Your task to perform on an android device: open app "File Manager" (install if not already installed) Image 0: 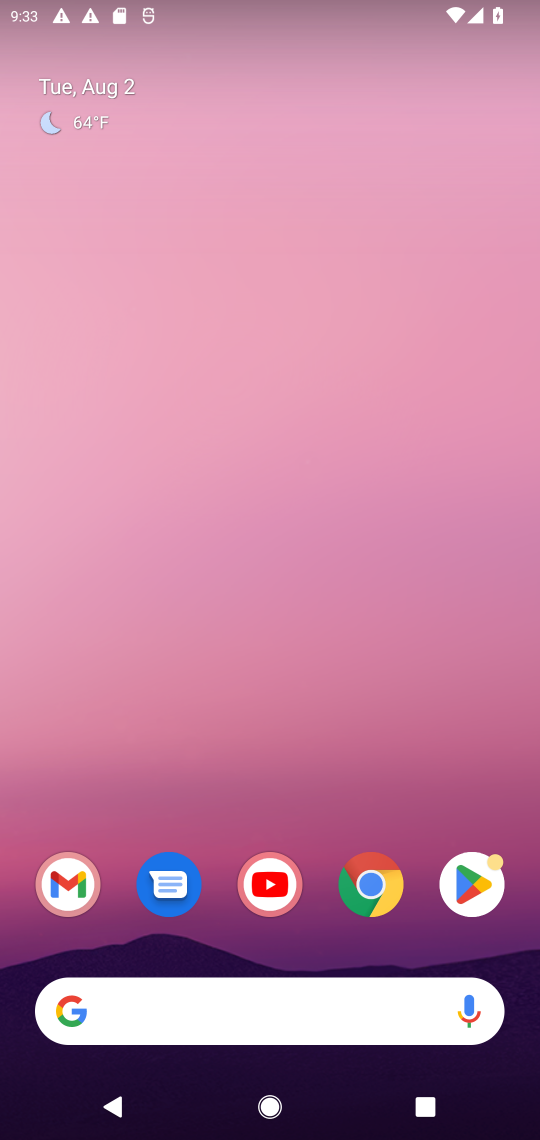
Step 0: press home button
Your task to perform on an android device: open app "File Manager" (install if not already installed) Image 1: 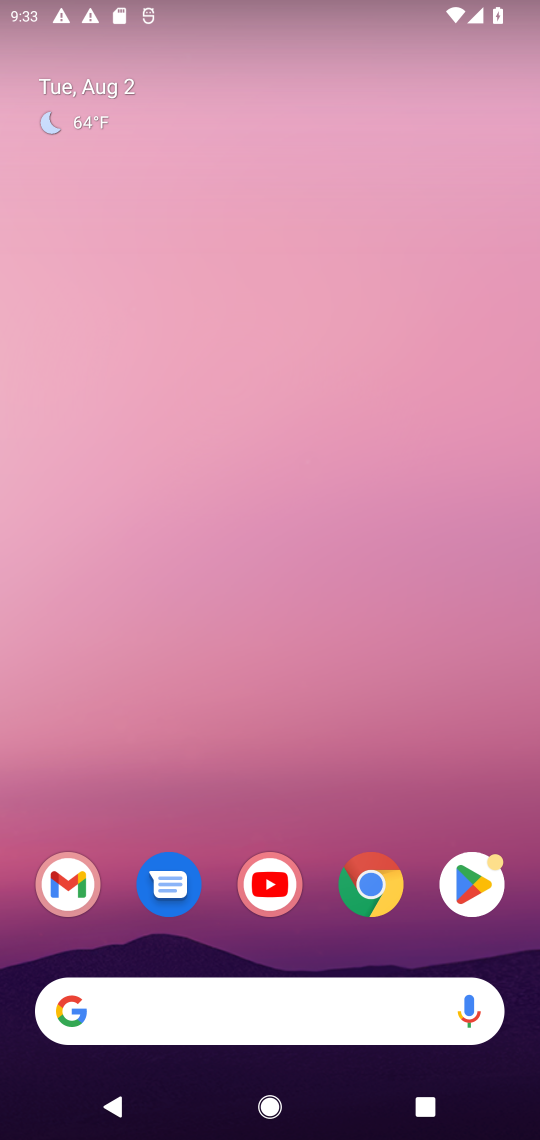
Step 1: click (474, 875)
Your task to perform on an android device: open app "File Manager" (install if not already installed) Image 2: 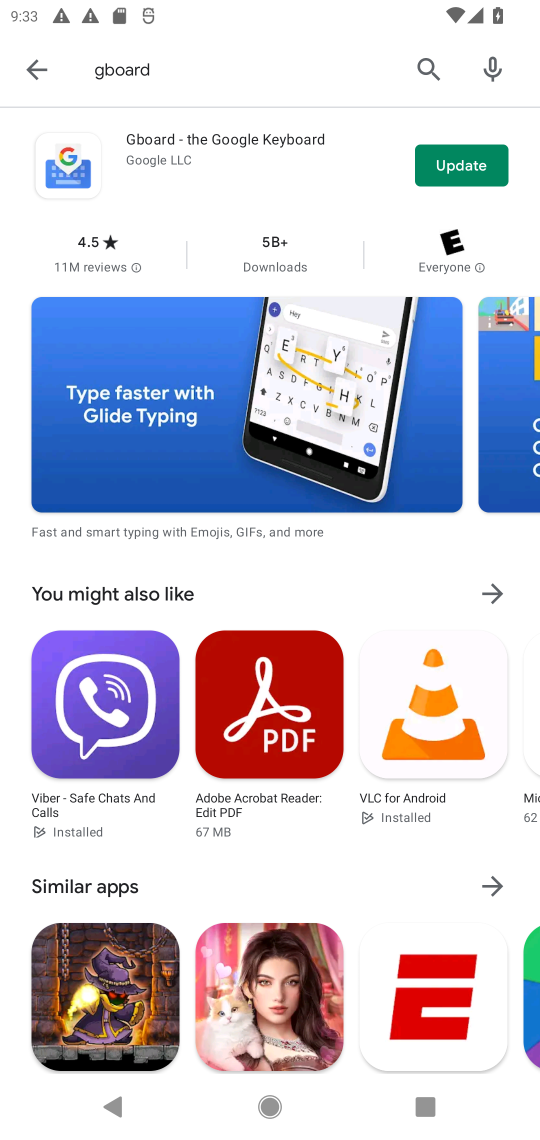
Step 2: click (424, 65)
Your task to perform on an android device: open app "File Manager" (install if not already installed) Image 3: 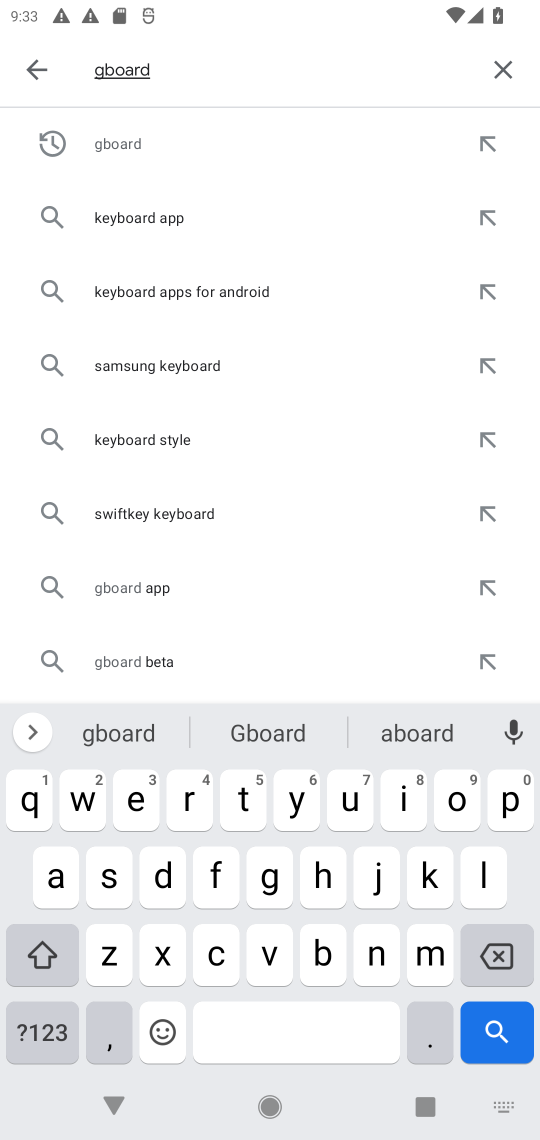
Step 3: click (500, 67)
Your task to perform on an android device: open app "File Manager" (install if not already installed) Image 4: 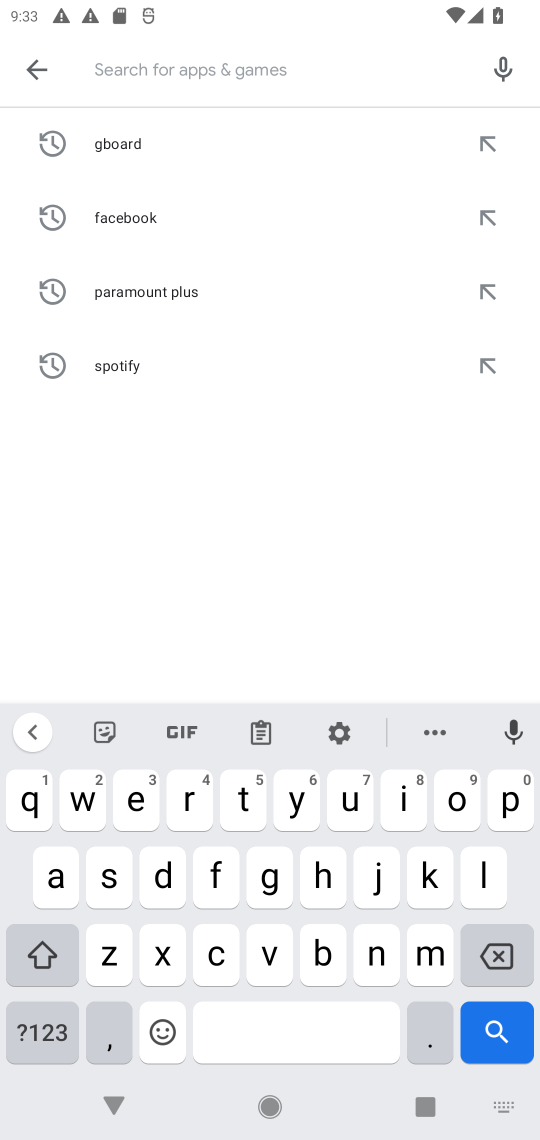
Step 4: click (218, 874)
Your task to perform on an android device: open app "File Manager" (install if not already installed) Image 5: 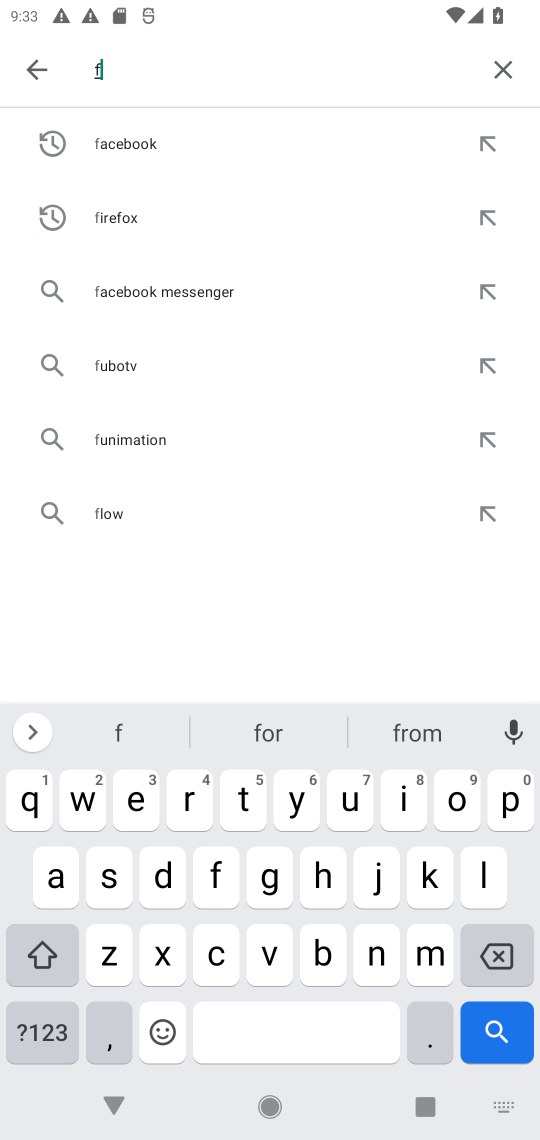
Step 5: click (411, 800)
Your task to perform on an android device: open app "File Manager" (install if not already installed) Image 6: 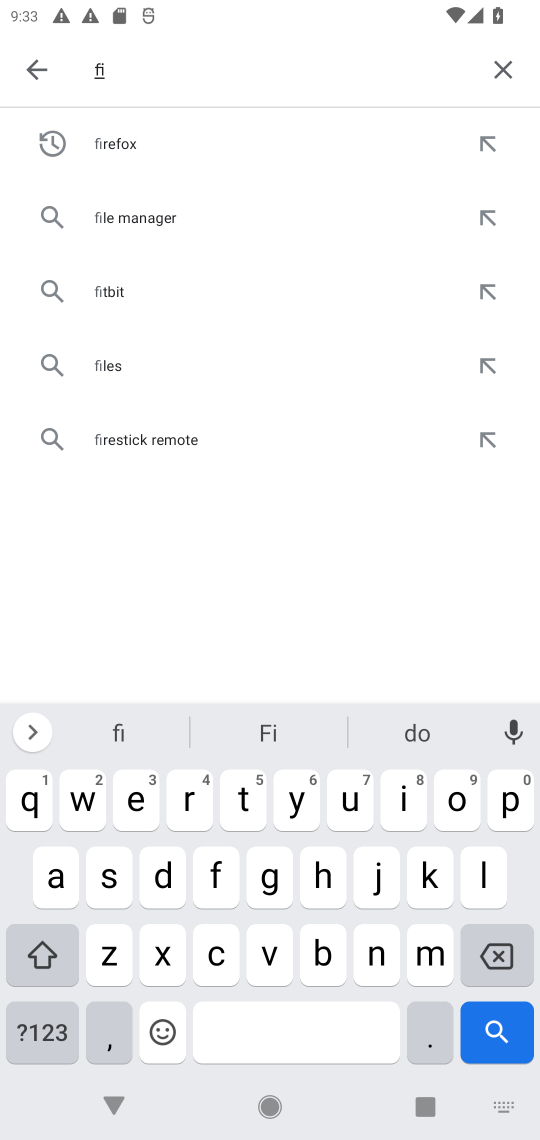
Step 6: click (483, 880)
Your task to perform on an android device: open app "File Manager" (install if not already installed) Image 7: 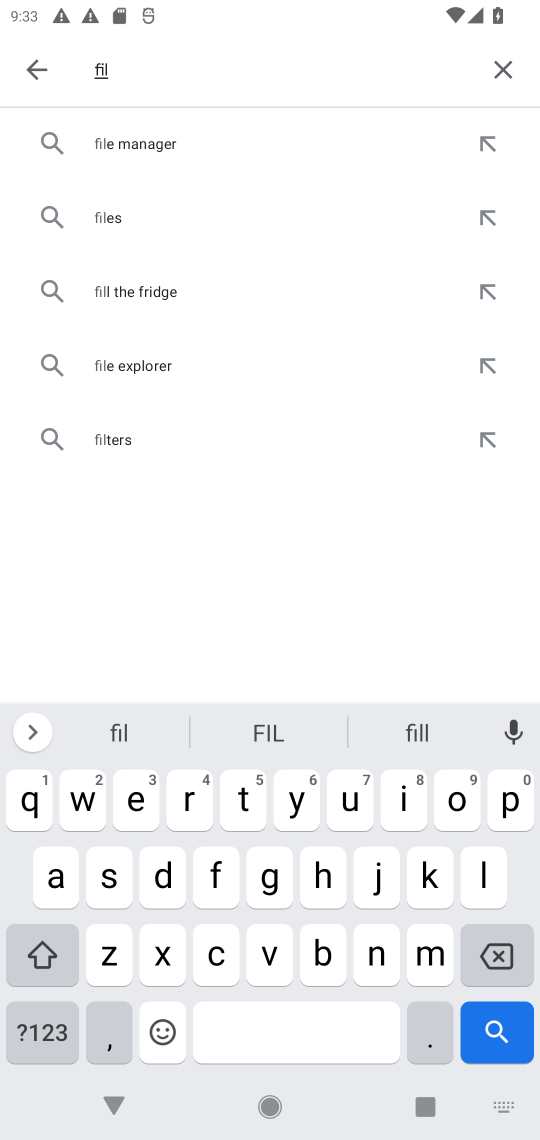
Step 7: click (132, 802)
Your task to perform on an android device: open app "File Manager" (install if not already installed) Image 8: 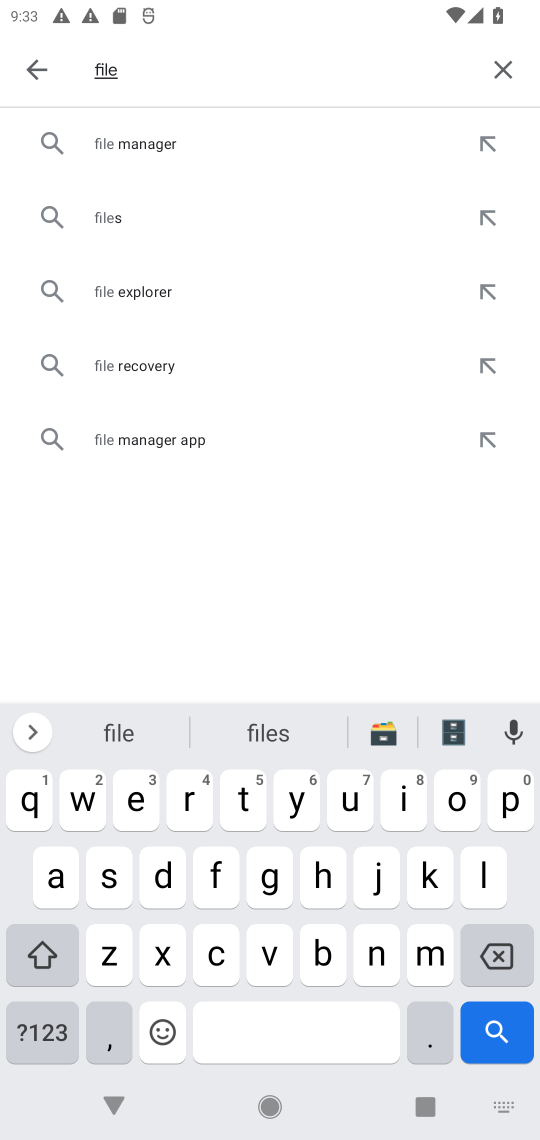
Step 8: click (250, 1022)
Your task to perform on an android device: open app "File Manager" (install if not already installed) Image 9: 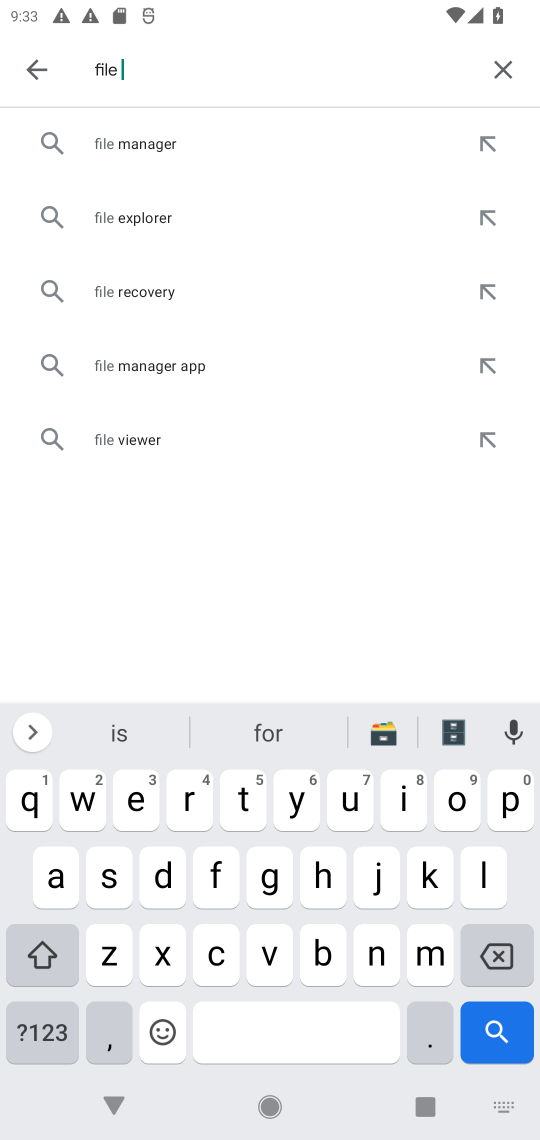
Step 9: click (201, 144)
Your task to perform on an android device: open app "File Manager" (install if not already installed) Image 10: 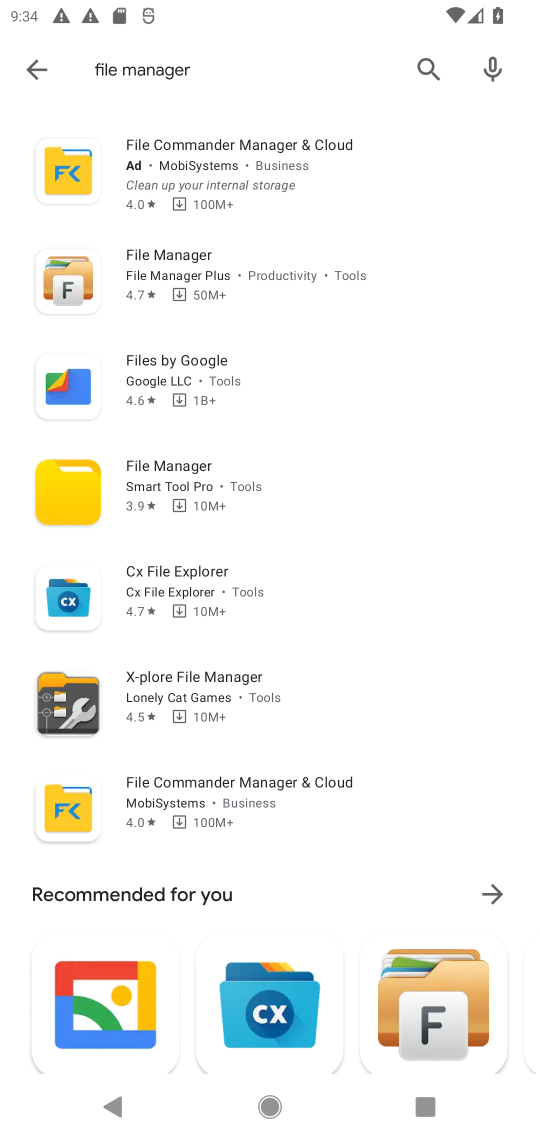
Step 10: click (226, 472)
Your task to perform on an android device: open app "File Manager" (install if not already installed) Image 11: 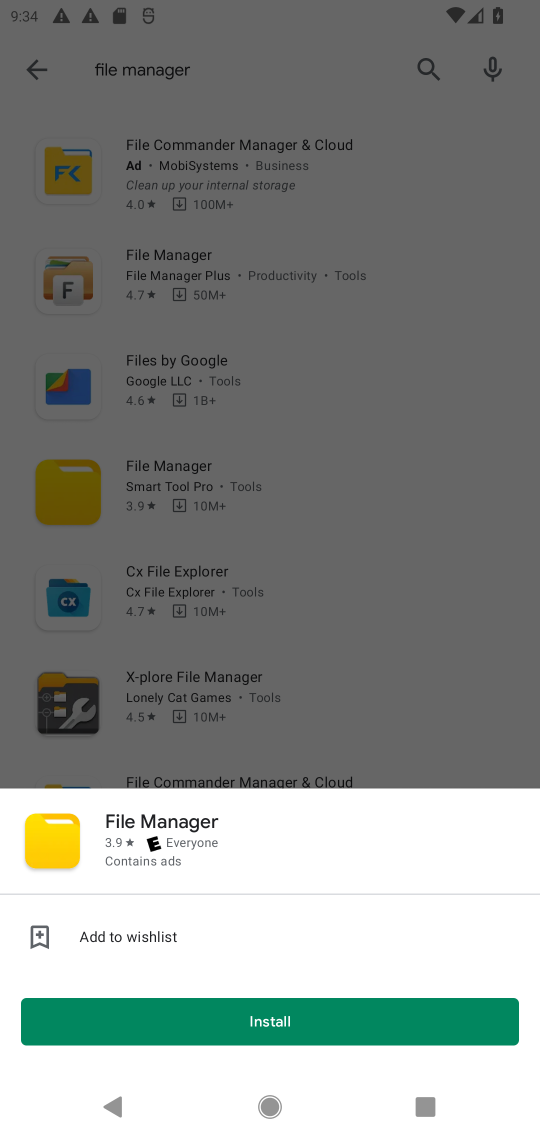
Step 11: click (249, 433)
Your task to perform on an android device: open app "File Manager" (install if not already installed) Image 12: 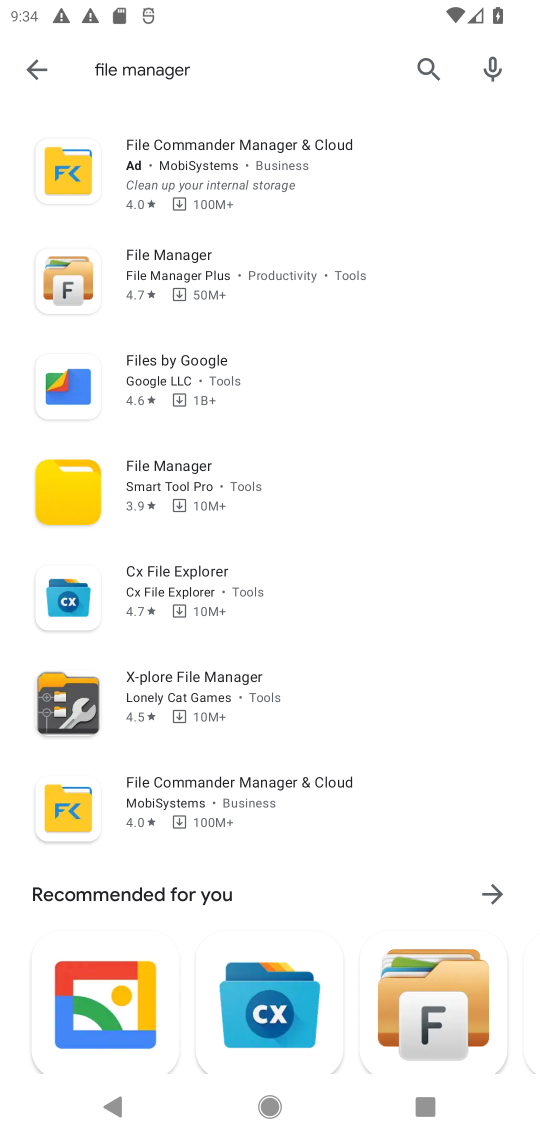
Step 12: click (210, 282)
Your task to perform on an android device: open app "File Manager" (install if not already installed) Image 13: 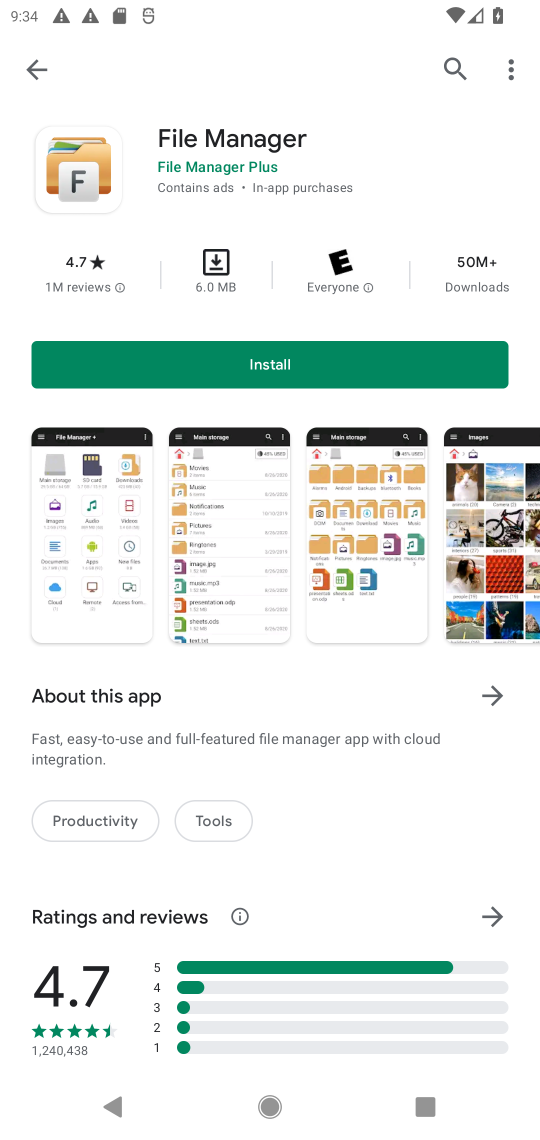
Step 13: click (325, 370)
Your task to perform on an android device: open app "File Manager" (install if not already installed) Image 14: 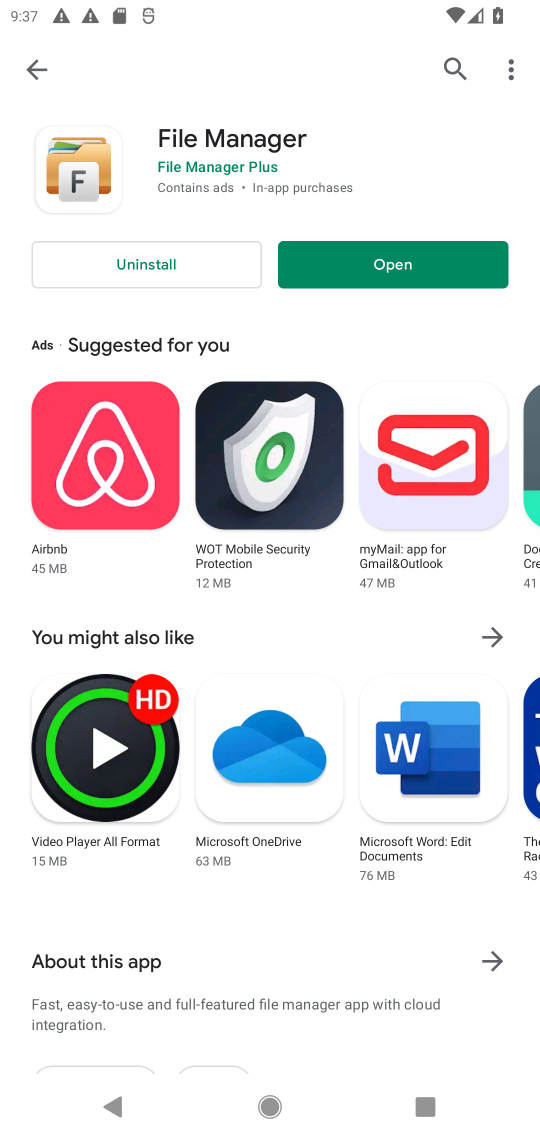
Step 14: click (344, 259)
Your task to perform on an android device: open app "File Manager" (install if not already installed) Image 15: 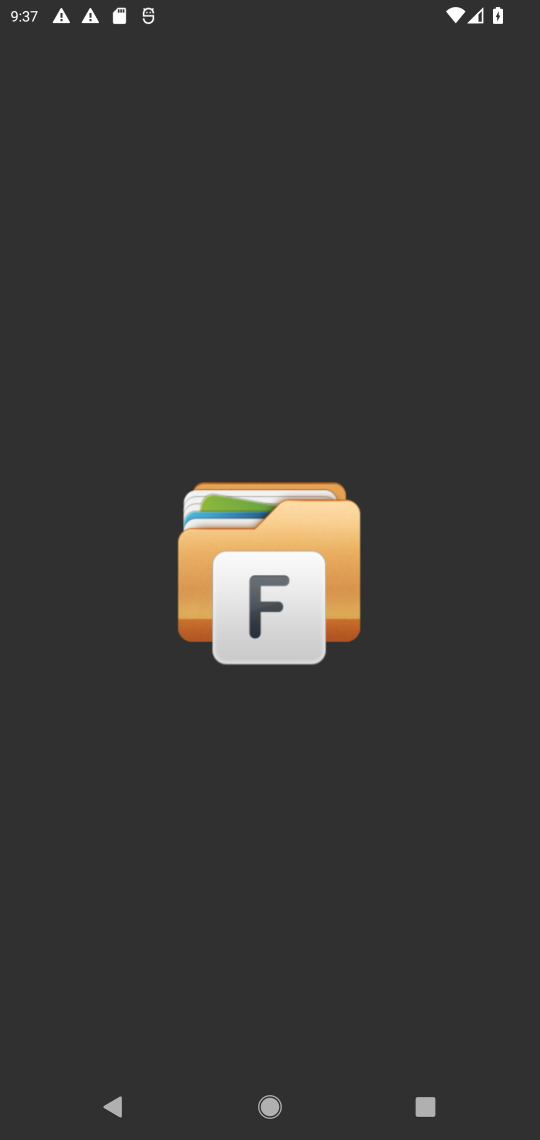
Step 15: task complete